Your task to perform on an android device: set an alarm Image 0: 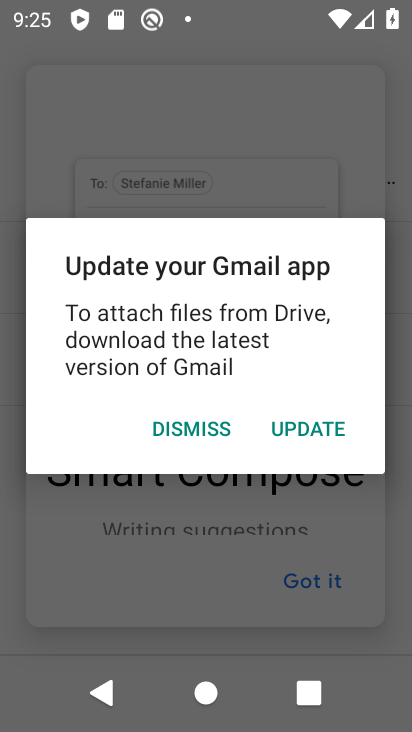
Step 0: press home button
Your task to perform on an android device: set an alarm Image 1: 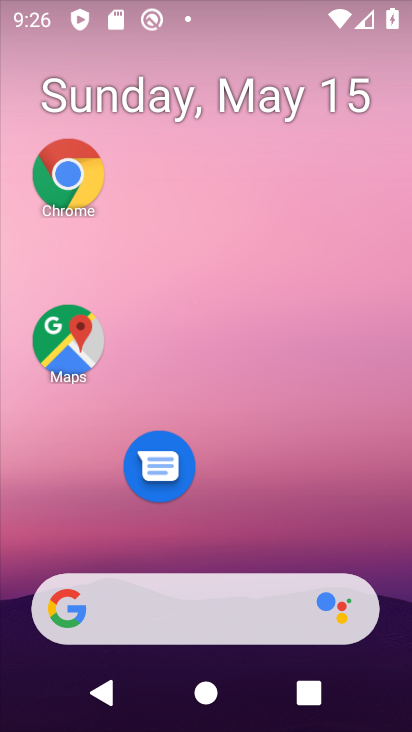
Step 1: drag from (303, 524) to (256, 68)
Your task to perform on an android device: set an alarm Image 2: 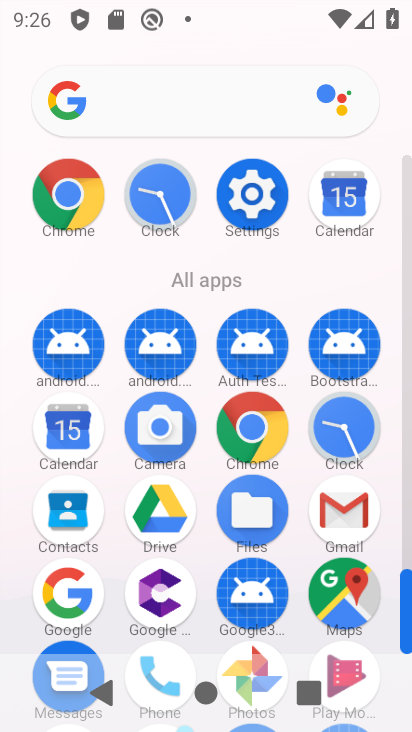
Step 2: click (364, 429)
Your task to perform on an android device: set an alarm Image 3: 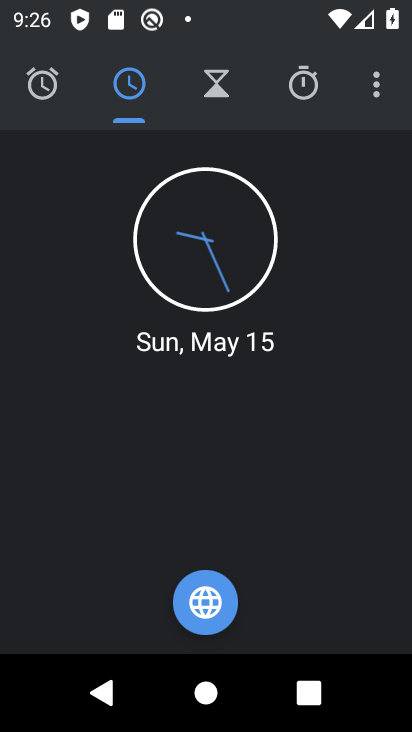
Step 3: click (38, 76)
Your task to perform on an android device: set an alarm Image 4: 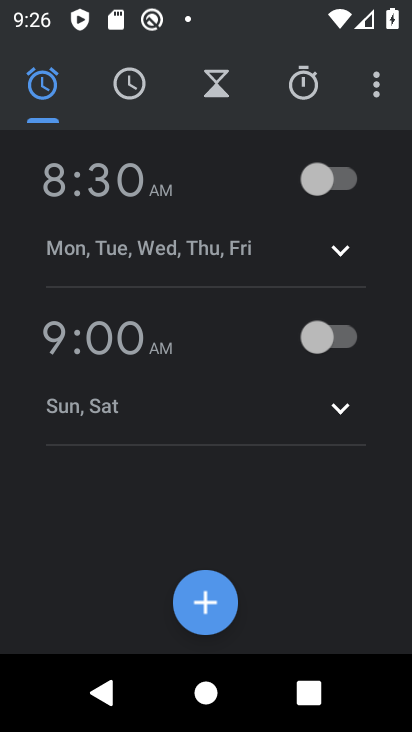
Step 4: click (218, 598)
Your task to perform on an android device: set an alarm Image 5: 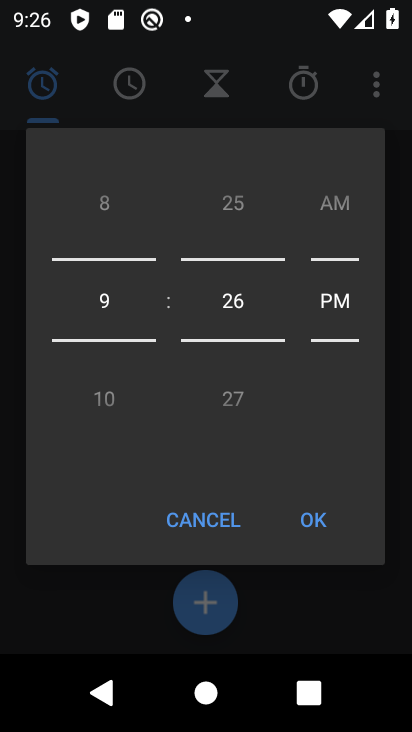
Step 5: click (327, 521)
Your task to perform on an android device: set an alarm Image 6: 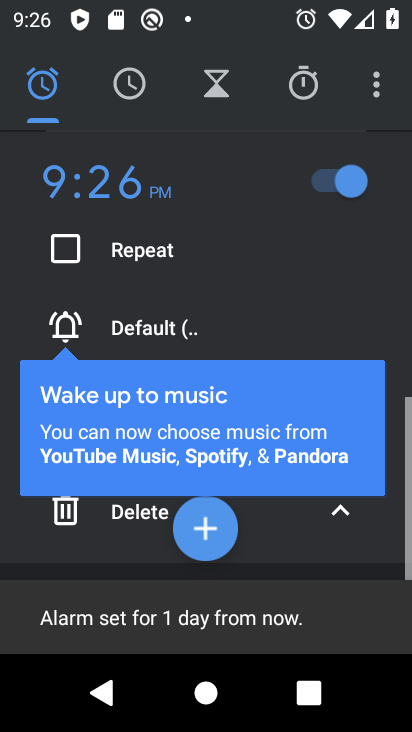
Step 6: task complete